Your task to perform on an android device: turn off priority inbox in the gmail app Image 0: 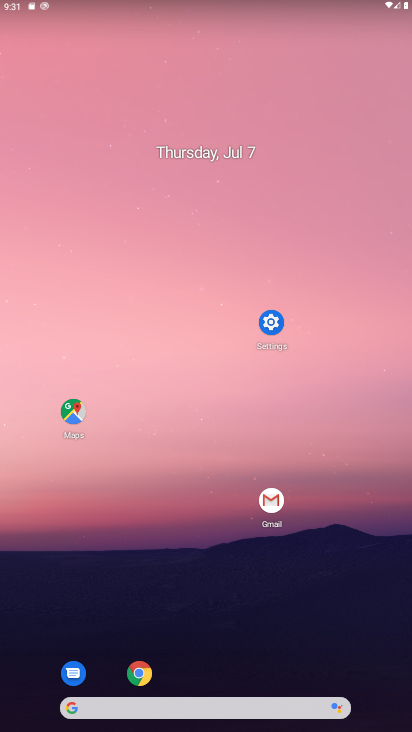
Step 0: press home button
Your task to perform on an android device: turn off priority inbox in the gmail app Image 1: 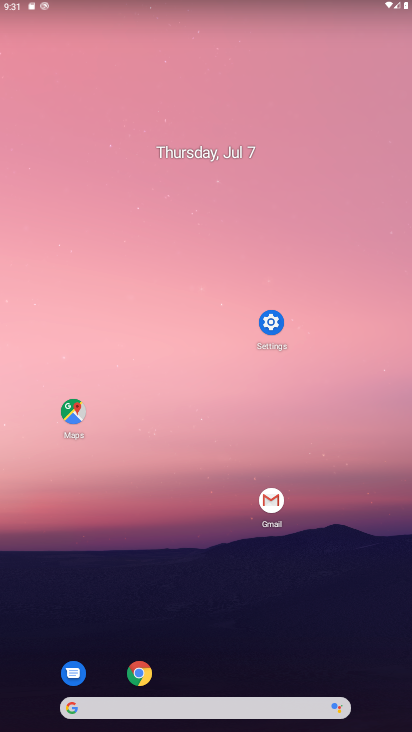
Step 1: click (278, 506)
Your task to perform on an android device: turn off priority inbox in the gmail app Image 2: 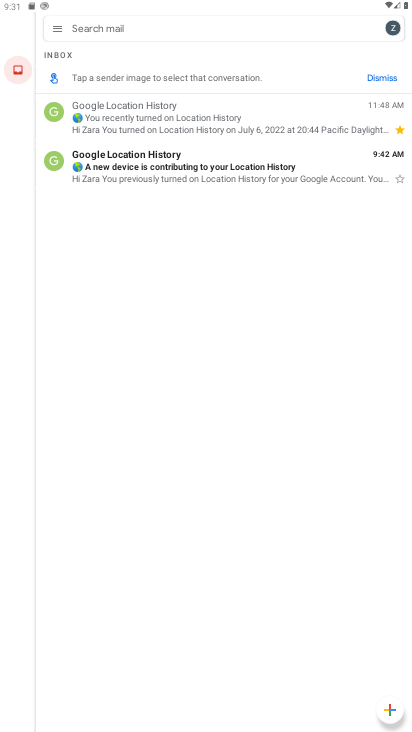
Step 2: click (54, 28)
Your task to perform on an android device: turn off priority inbox in the gmail app Image 3: 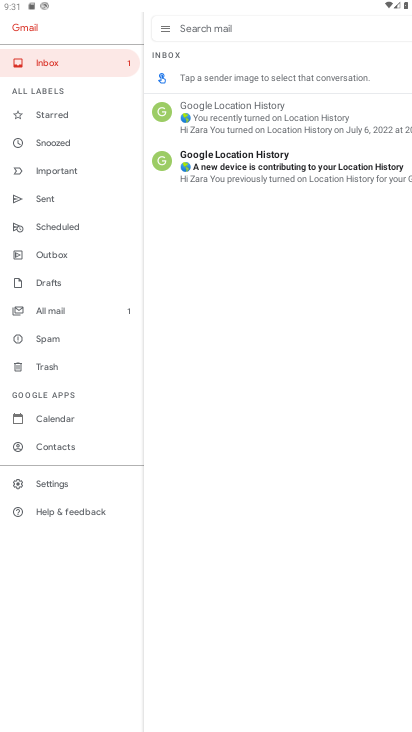
Step 3: click (57, 480)
Your task to perform on an android device: turn off priority inbox in the gmail app Image 4: 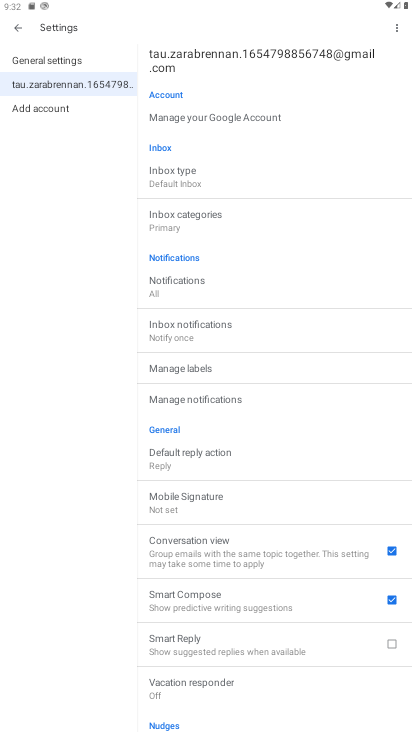
Step 4: click (179, 220)
Your task to perform on an android device: turn off priority inbox in the gmail app Image 5: 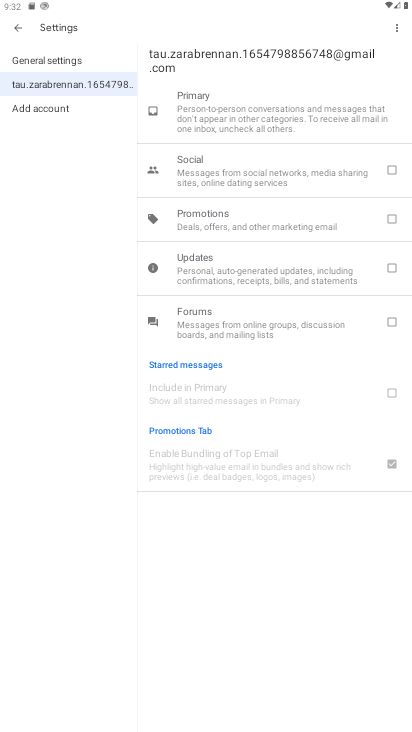
Step 5: click (16, 20)
Your task to perform on an android device: turn off priority inbox in the gmail app Image 6: 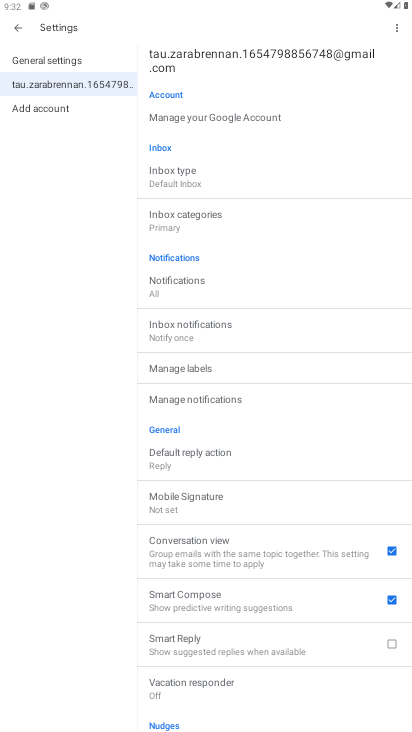
Step 6: click (169, 219)
Your task to perform on an android device: turn off priority inbox in the gmail app Image 7: 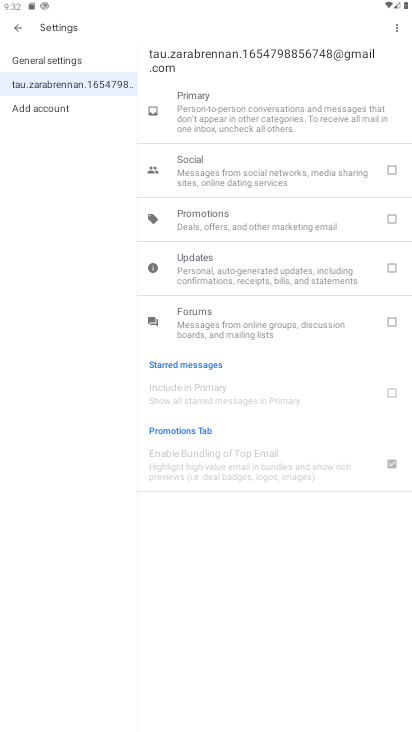
Step 7: click (19, 25)
Your task to perform on an android device: turn off priority inbox in the gmail app Image 8: 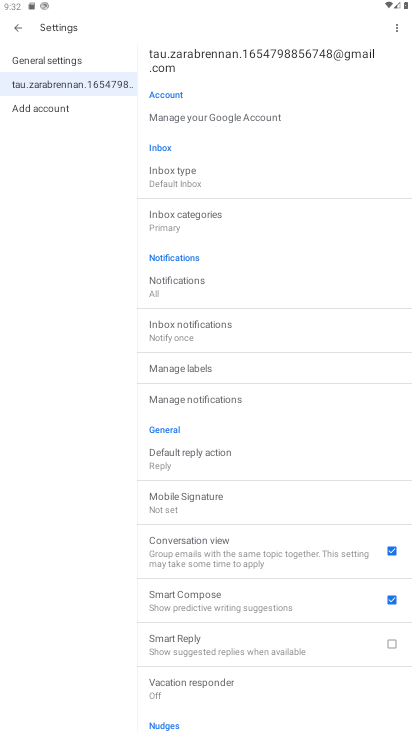
Step 8: click (173, 176)
Your task to perform on an android device: turn off priority inbox in the gmail app Image 9: 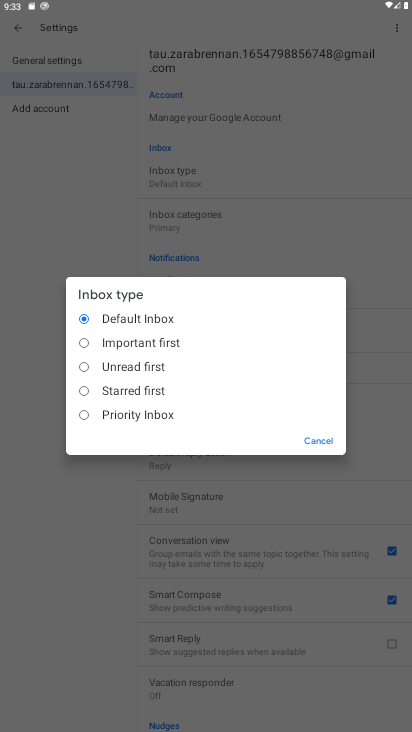
Step 9: task complete